Your task to perform on an android device: toggle improve location accuracy Image 0: 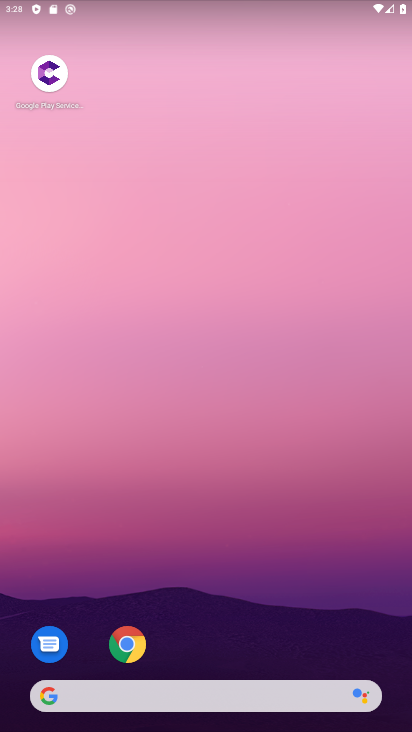
Step 0: drag from (269, 621) to (222, 51)
Your task to perform on an android device: toggle improve location accuracy Image 1: 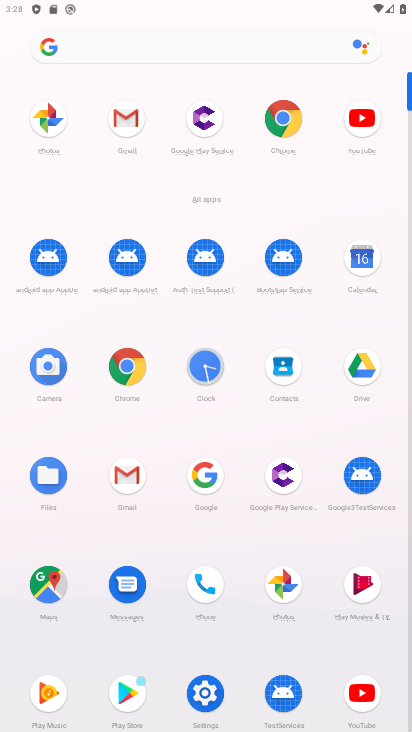
Step 1: click (200, 693)
Your task to perform on an android device: toggle improve location accuracy Image 2: 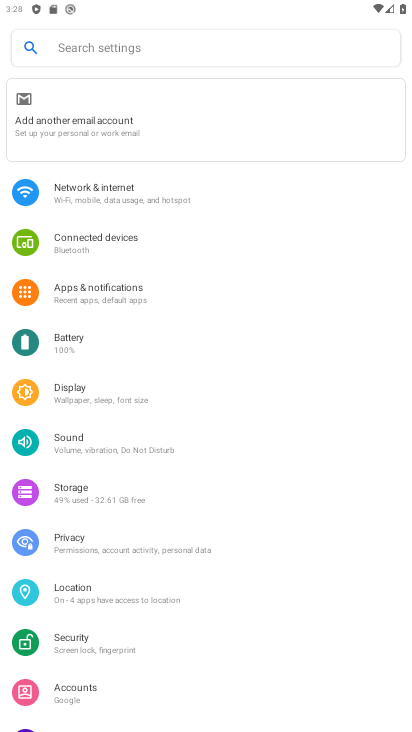
Step 2: click (118, 589)
Your task to perform on an android device: toggle improve location accuracy Image 3: 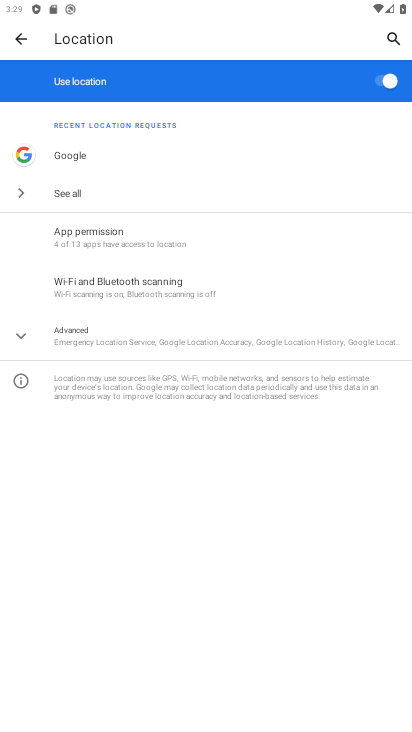
Step 3: click (111, 331)
Your task to perform on an android device: toggle improve location accuracy Image 4: 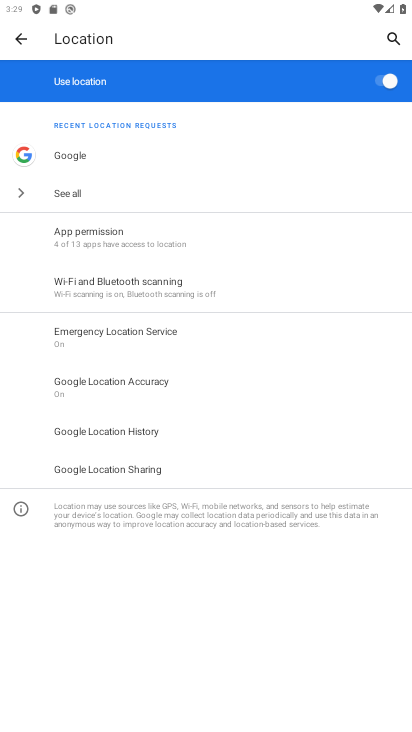
Step 4: click (151, 369)
Your task to perform on an android device: toggle improve location accuracy Image 5: 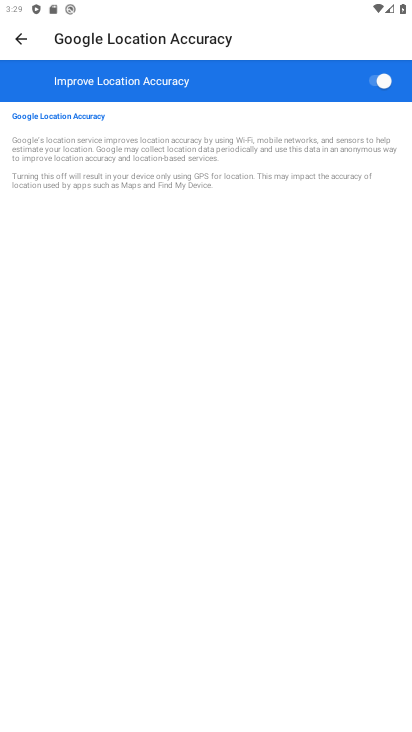
Step 5: click (377, 74)
Your task to perform on an android device: toggle improve location accuracy Image 6: 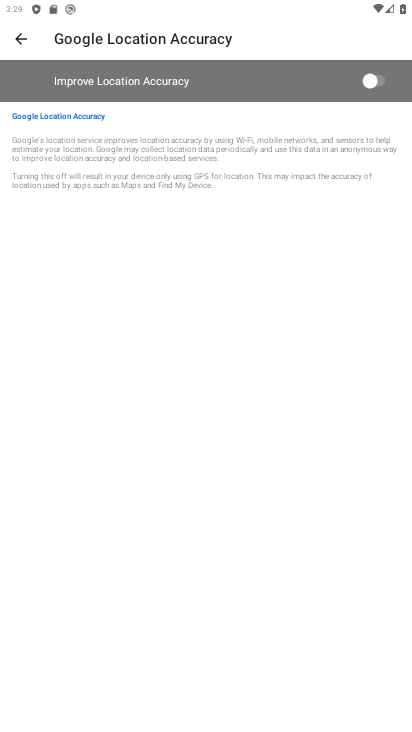
Step 6: task complete